Your task to perform on an android device: Empty the shopping cart on target.com. Search for "rayovac triple a" on target.com, select the first entry, add it to the cart, then select checkout. Image 0: 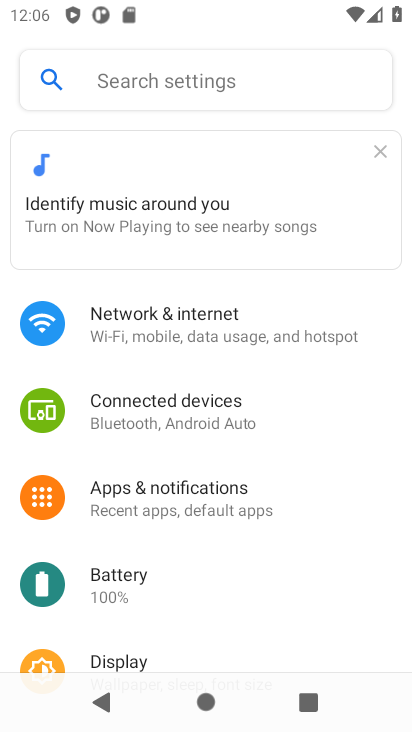
Step 0: press home button
Your task to perform on an android device: Empty the shopping cart on target.com. Search for "rayovac triple a" on target.com, select the first entry, add it to the cart, then select checkout. Image 1: 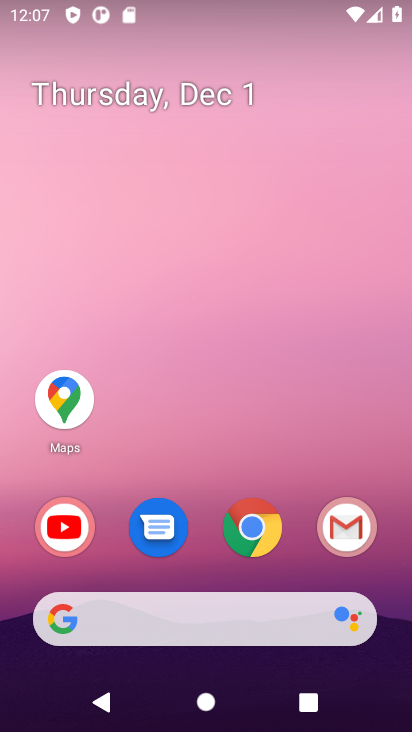
Step 1: click (264, 534)
Your task to perform on an android device: Empty the shopping cart on target.com. Search for "rayovac triple a" on target.com, select the first entry, add it to the cart, then select checkout. Image 2: 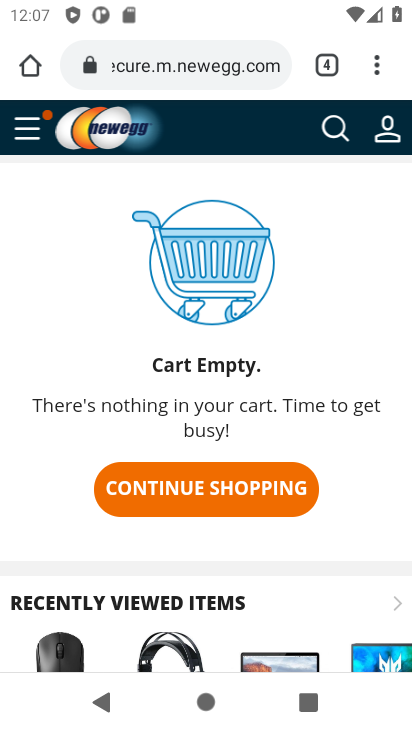
Step 2: click (184, 72)
Your task to perform on an android device: Empty the shopping cart on target.com. Search for "rayovac triple a" on target.com, select the first entry, add it to the cart, then select checkout. Image 3: 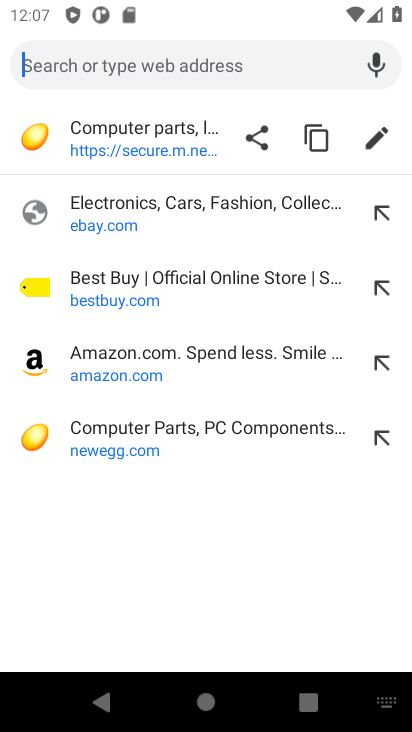
Step 3: type "target.com"
Your task to perform on an android device: Empty the shopping cart on target.com. Search for "rayovac triple a" on target.com, select the first entry, add it to the cart, then select checkout. Image 4: 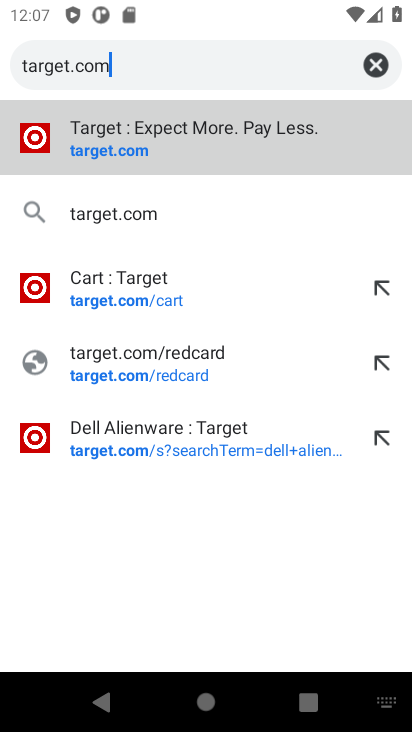
Step 4: click (141, 139)
Your task to perform on an android device: Empty the shopping cart on target.com. Search for "rayovac triple a" on target.com, select the first entry, add it to the cart, then select checkout. Image 5: 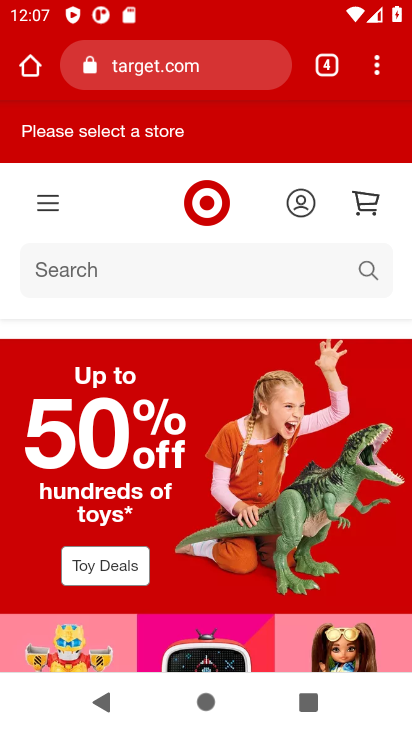
Step 5: click (370, 204)
Your task to perform on an android device: Empty the shopping cart on target.com. Search for "rayovac triple a" on target.com, select the first entry, add it to the cart, then select checkout. Image 6: 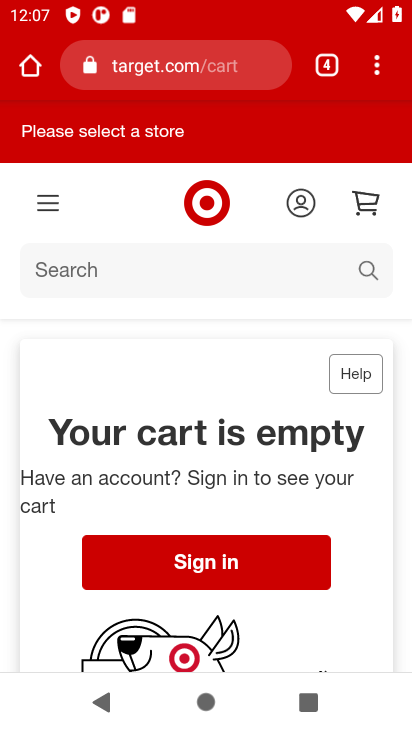
Step 6: drag from (294, 577) to (310, 413)
Your task to perform on an android device: Empty the shopping cart on target.com. Search for "rayovac triple a" on target.com, select the first entry, add it to the cart, then select checkout. Image 7: 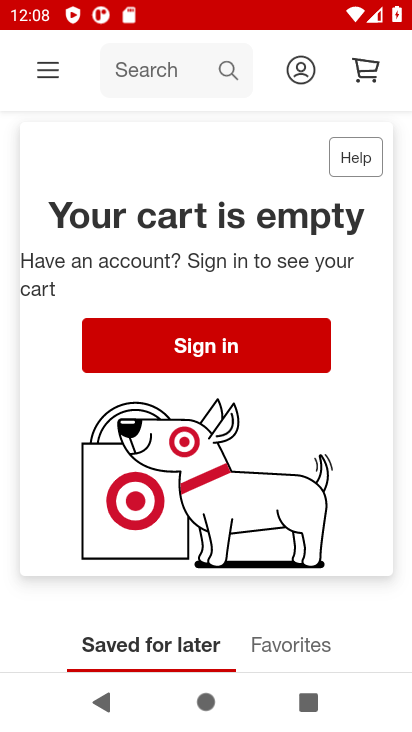
Step 7: click (227, 71)
Your task to perform on an android device: Empty the shopping cart on target.com. Search for "rayovac triple a" on target.com, select the first entry, add it to the cart, then select checkout. Image 8: 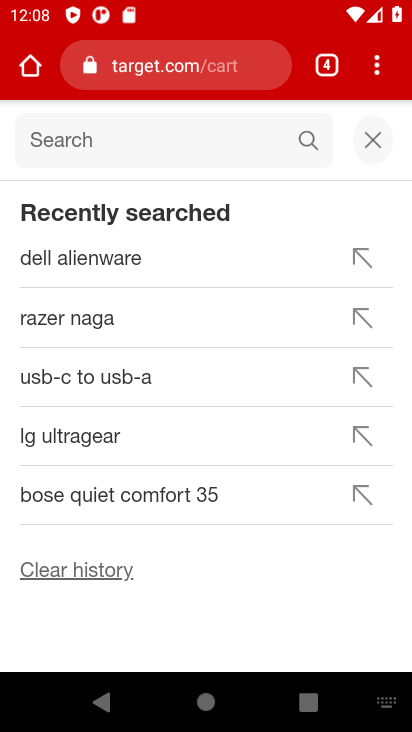
Step 8: type "rayovac triple a"
Your task to perform on an android device: Empty the shopping cart on target.com. Search for "rayovac triple a" on target.com, select the first entry, add it to the cart, then select checkout. Image 9: 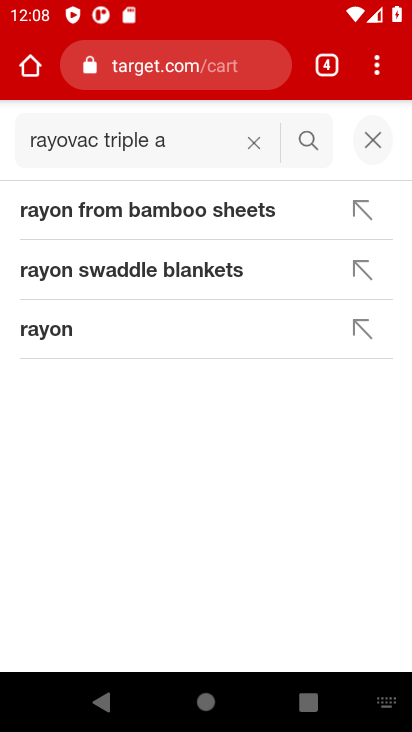
Step 9: click (303, 138)
Your task to perform on an android device: Empty the shopping cart on target.com. Search for "rayovac triple a" on target.com, select the first entry, add it to the cart, then select checkout. Image 10: 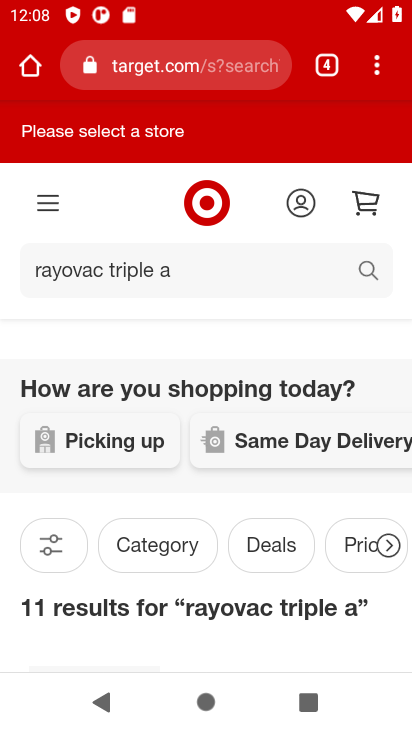
Step 10: task complete